Your task to perform on an android device: Open CNN.com Image 0: 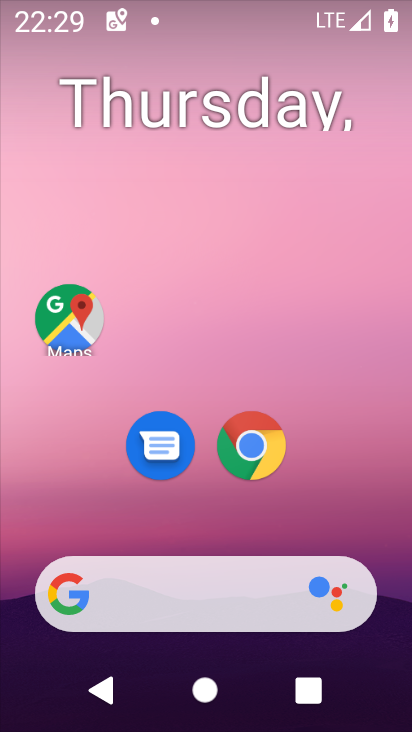
Step 0: drag from (214, 518) to (258, 187)
Your task to perform on an android device: Open CNN.com Image 1: 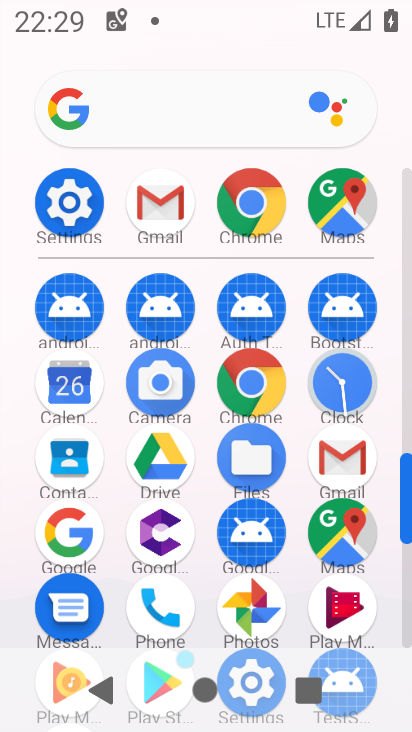
Step 1: drag from (201, 268) to (200, 172)
Your task to perform on an android device: Open CNN.com Image 2: 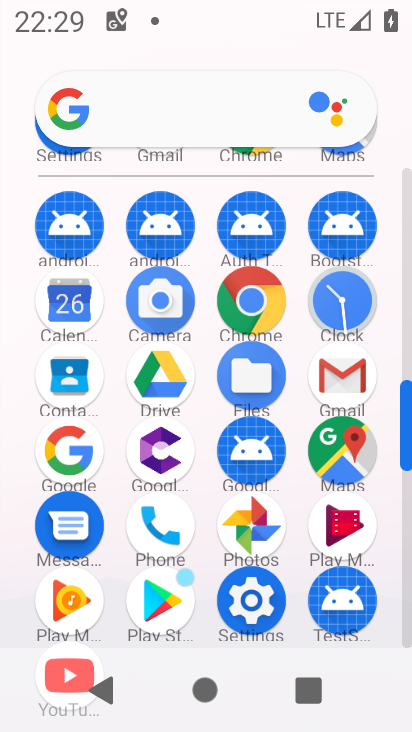
Step 2: click (252, 309)
Your task to perform on an android device: Open CNN.com Image 3: 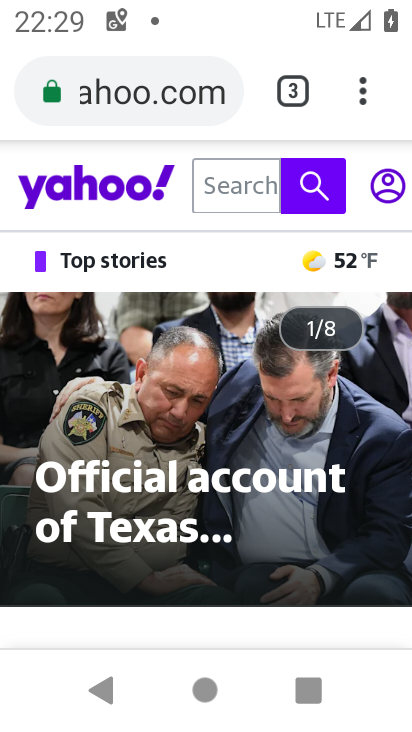
Step 3: click (371, 93)
Your task to perform on an android device: Open CNN.com Image 4: 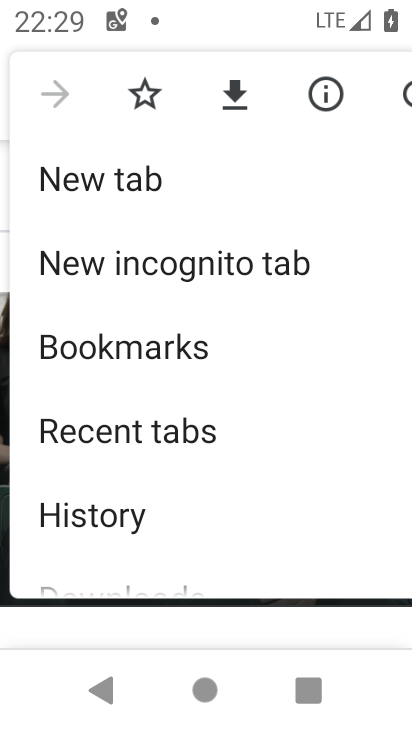
Step 4: drag from (196, 445) to (180, 179)
Your task to perform on an android device: Open CNN.com Image 5: 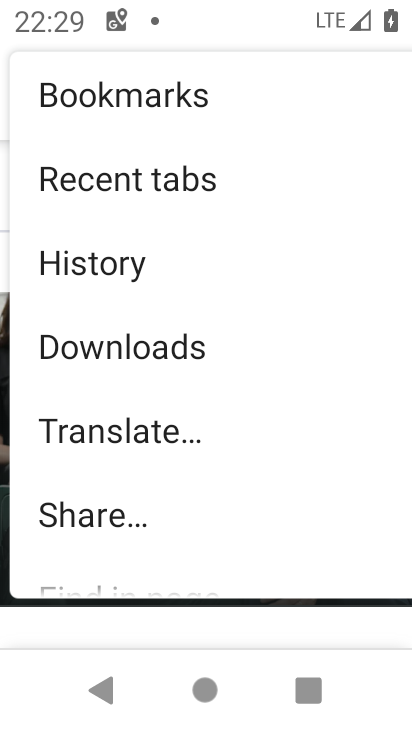
Step 5: drag from (185, 477) to (184, 341)
Your task to perform on an android device: Open CNN.com Image 6: 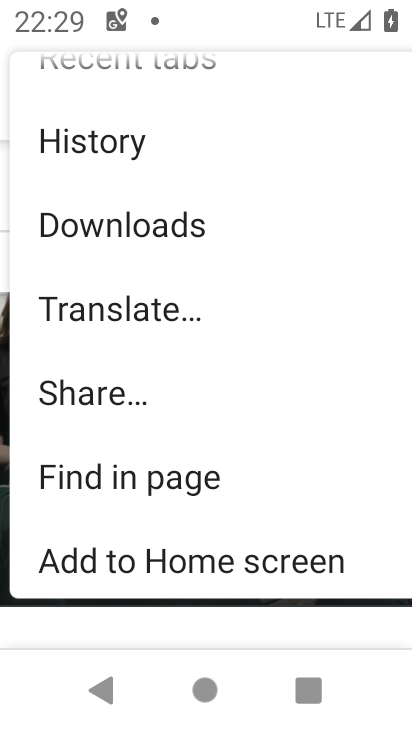
Step 6: press back button
Your task to perform on an android device: Open CNN.com Image 7: 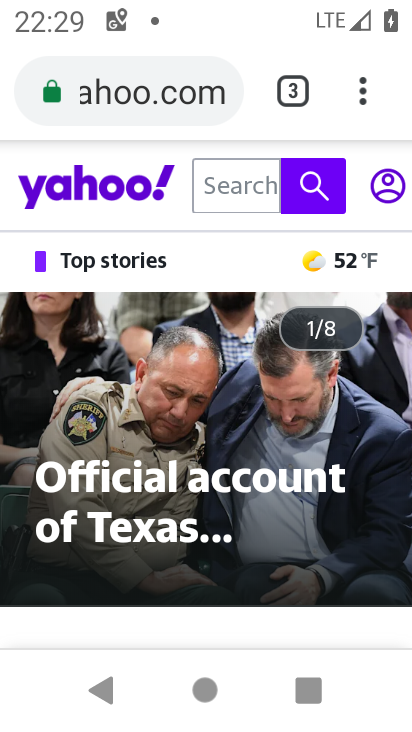
Step 7: click (299, 104)
Your task to perform on an android device: Open CNN.com Image 8: 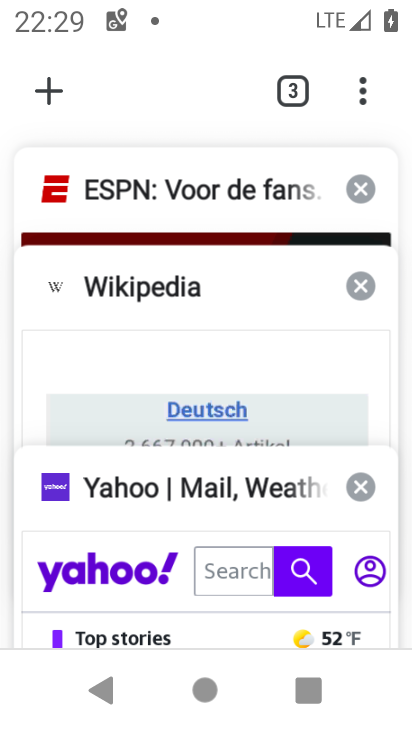
Step 8: click (59, 98)
Your task to perform on an android device: Open CNN.com Image 9: 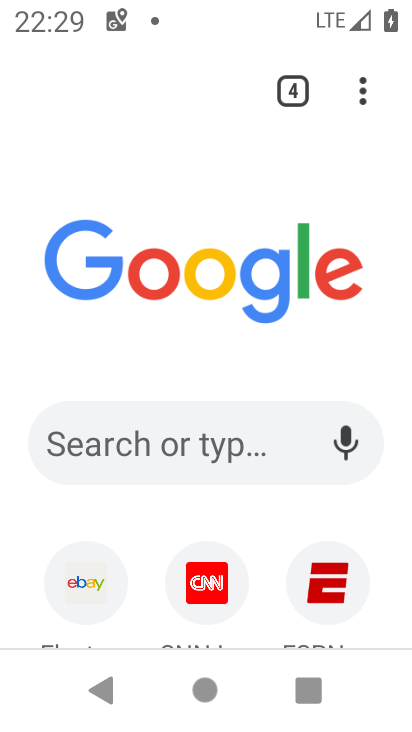
Step 9: click (201, 578)
Your task to perform on an android device: Open CNN.com Image 10: 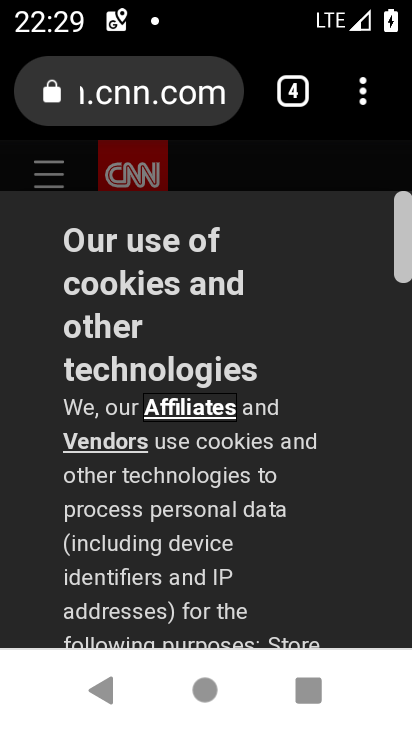
Step 10: task complete